Your task to perform on an android device: set the timer Image 0: 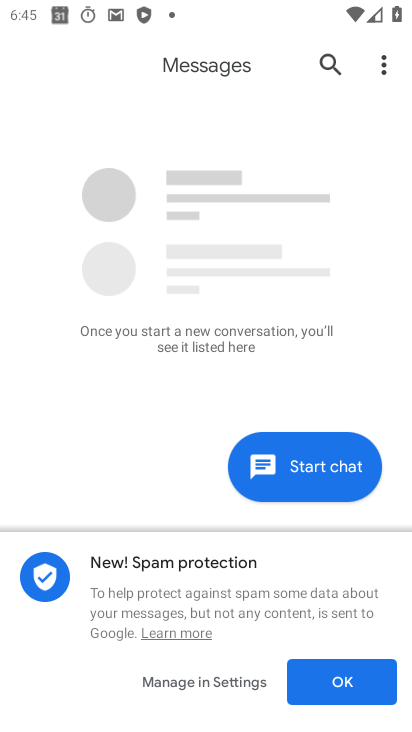
Step 0: press home button
Your task to perform on an android device: set the timer Image 1: 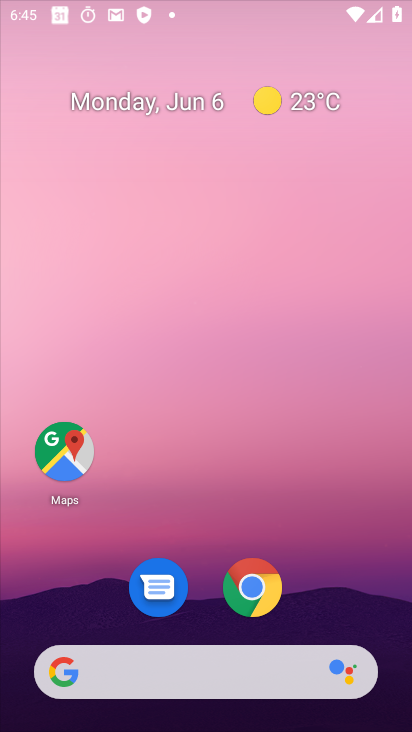
Step 1: drag from (402, 668) to (328, 45)
Your task to perform on an android device: set the timer Image 2: 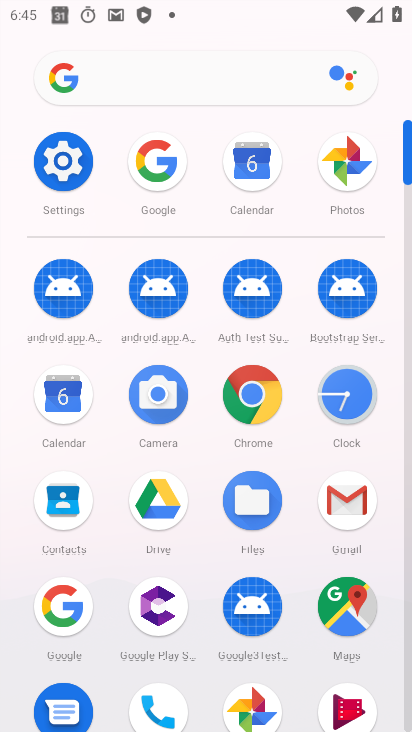
Step 2: click (349, 397)
Your task to perform on an android device: set the timer Image 3: 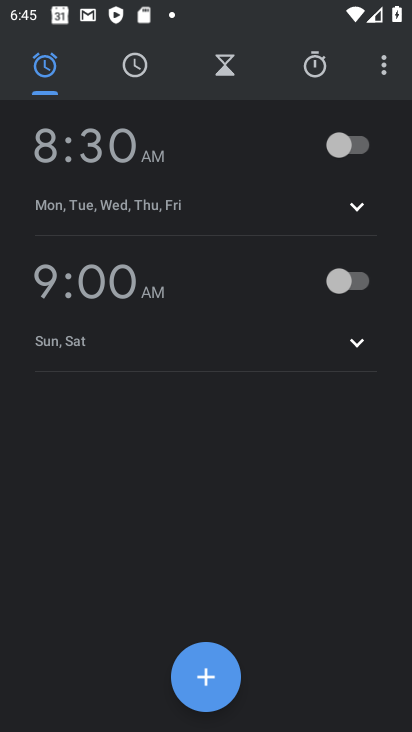
Step 3: click (382, 64)
Your task to perform on an android device: set the timer Image 4: 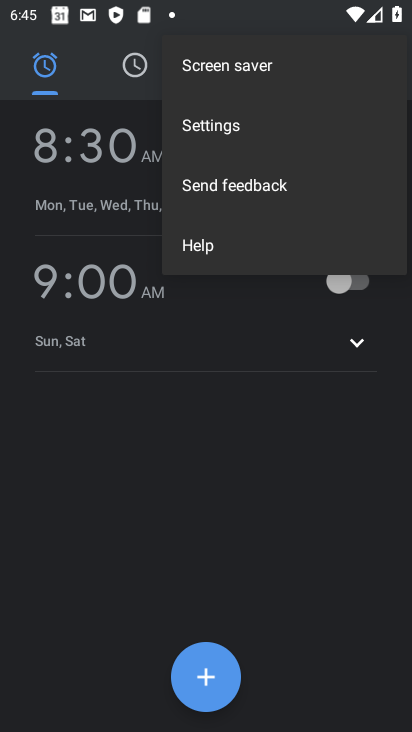
Step 4: click (232, 138)
Your task to perform on an android device: set the timer Image 5: 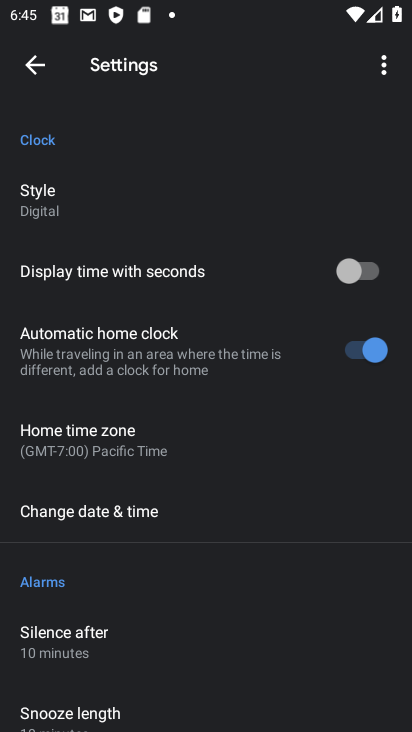
Step 5: click (136, 441)
Your task to perform on an android device: set the timer Image 6: 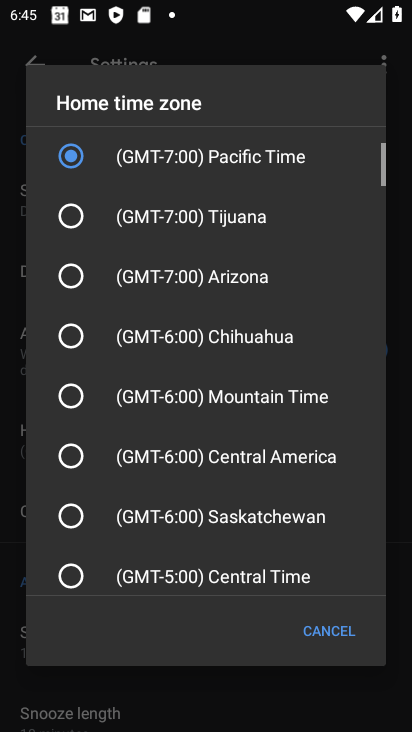
Step 6: click (158, 393)
Your task to perform on an android device: set the timer Image 7: 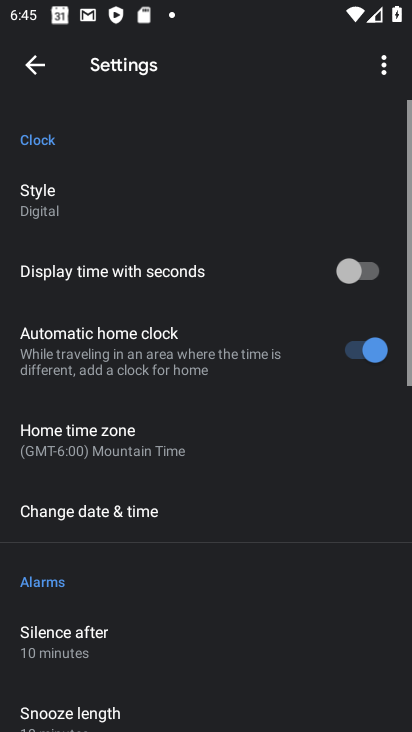
Step 7: task complete